Your task to perform on an android device: Go to ESPN.com Image 0: 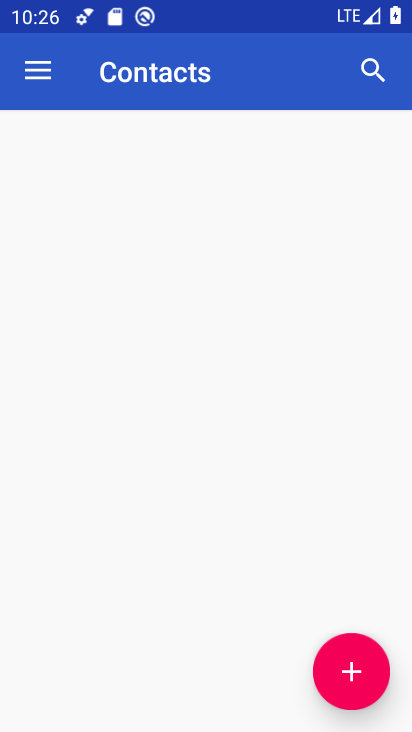
Step 0: press home button
Your task to perform on an android device: Go to ESPN.com Image 1: 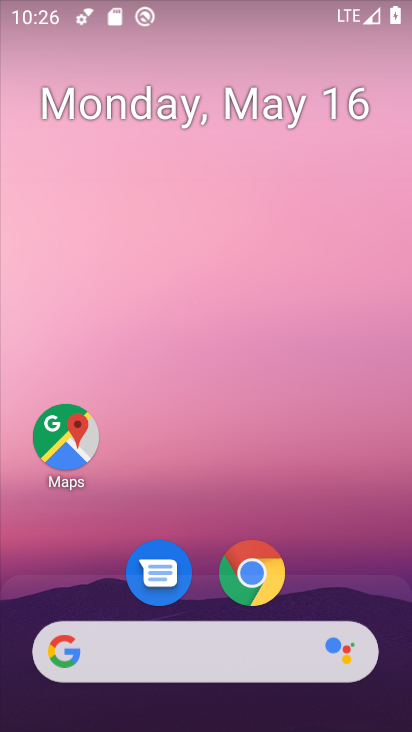
Step 1: click (246, 569)
Your task to perform on an android device: Go to ESPN.com Image 2: 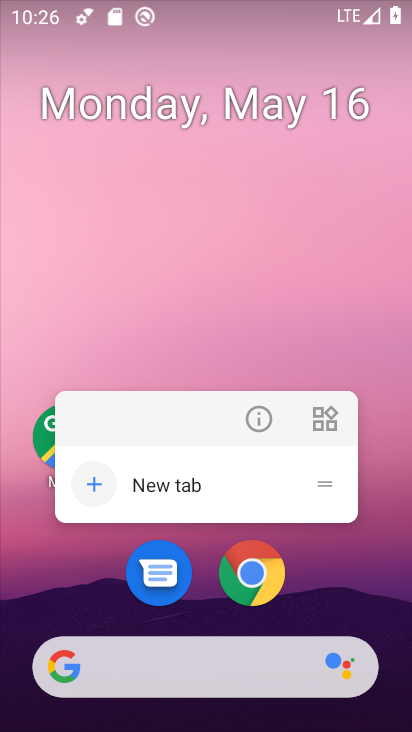
Step 2: click (268, 565)
Your task to perform on an android device: Go to ESPN.com Image 3: 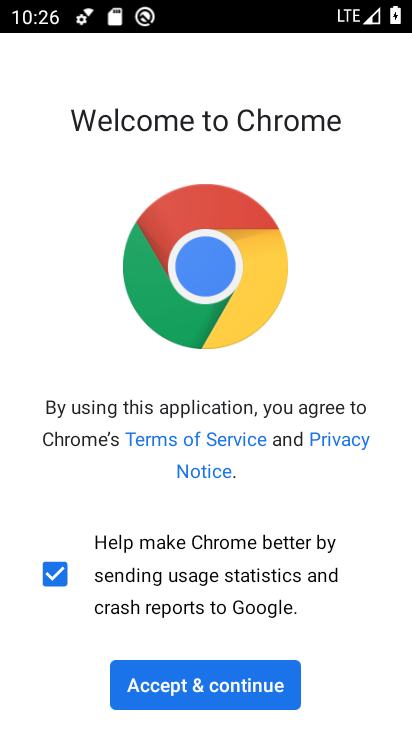
Step 3: click (212, 686)
Your task to perform on an android device: Go to ESPN.com Image 4: 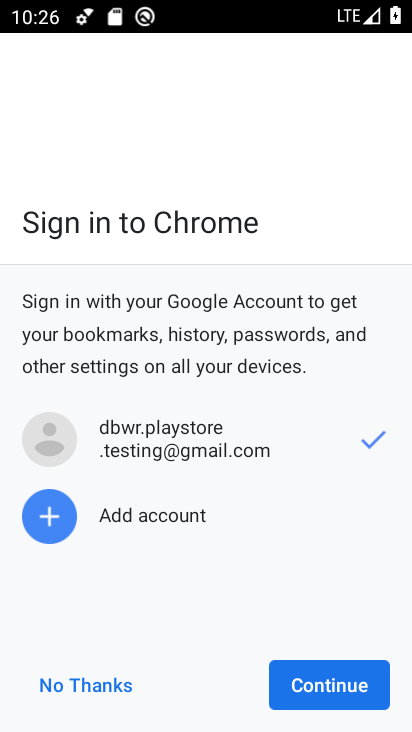
Step 4: click (288, 669)
Your task to perform on an android device: Go to ESPN.com Image 5: 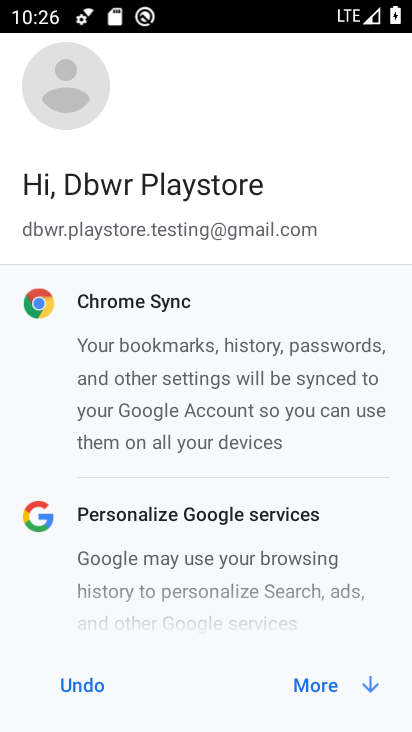
Step 5: click (335, 682)
Your task to perform on an android device: Go to ESPN.com Image 6: 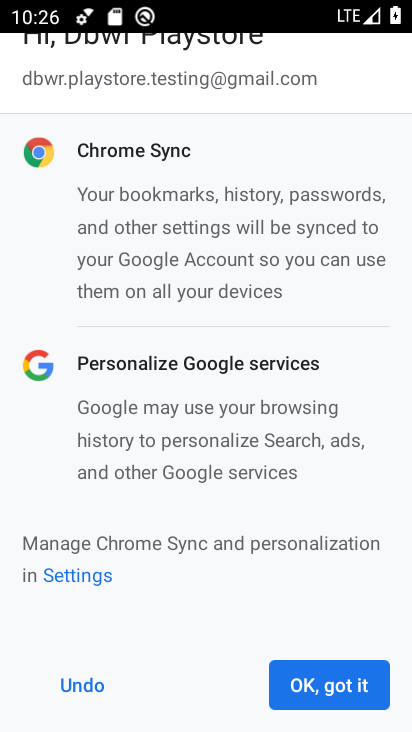
Step 6: click (335, 682)
Your task to perform on an android device: Go to ESPN.com Image 7: 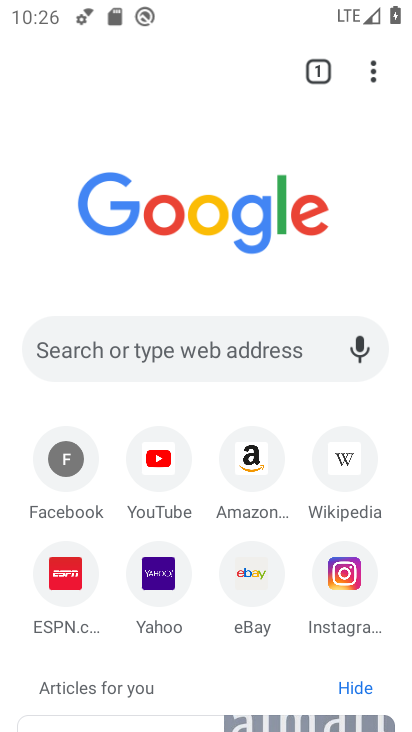
Step 7: click (209, 349)
Your task to perform on an android device: Go to ESPN.com Image 8: 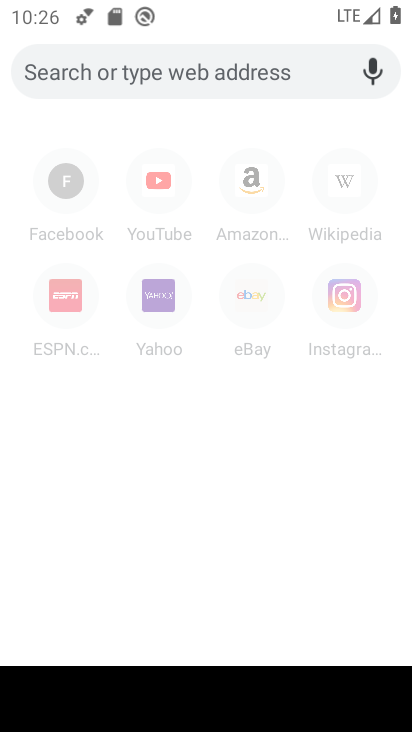
Step 8: type "ESPN.com"
Your task to perform on an android device: Go to ESPN.com Image 9: 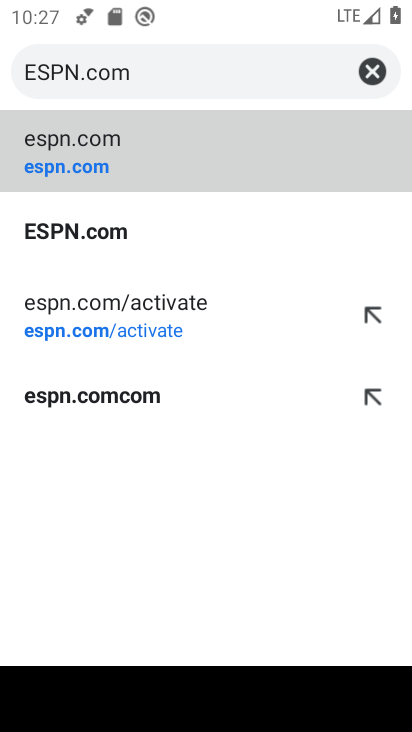
Step 9: click (95, 165)
Your task to perform on an android device: Go to ESPN.com Image 10: 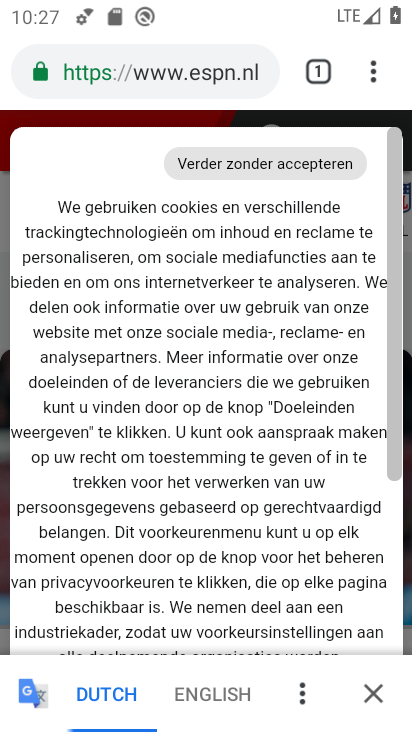
Step 10: task complete